Your task to perform on an android device: Clear the cart on newegg. Add "usb-c to usb-a" to the cart on newegg Image 0: 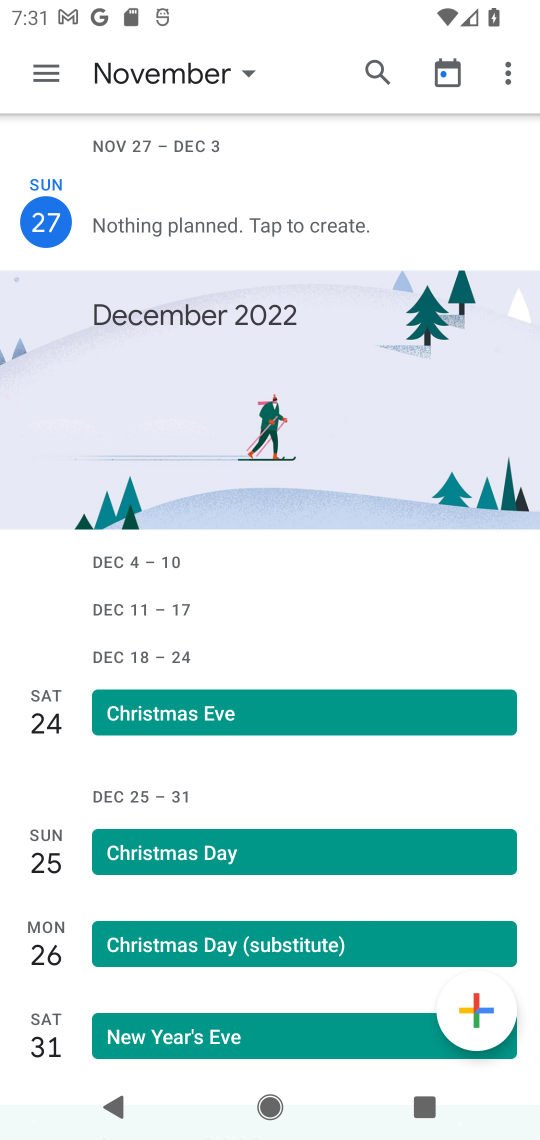
Step 0: press home button
Your task to perform on an android device: Clear the cart on newegg. Add "usb-c to usb-a" to the cart on newegg Image 1: 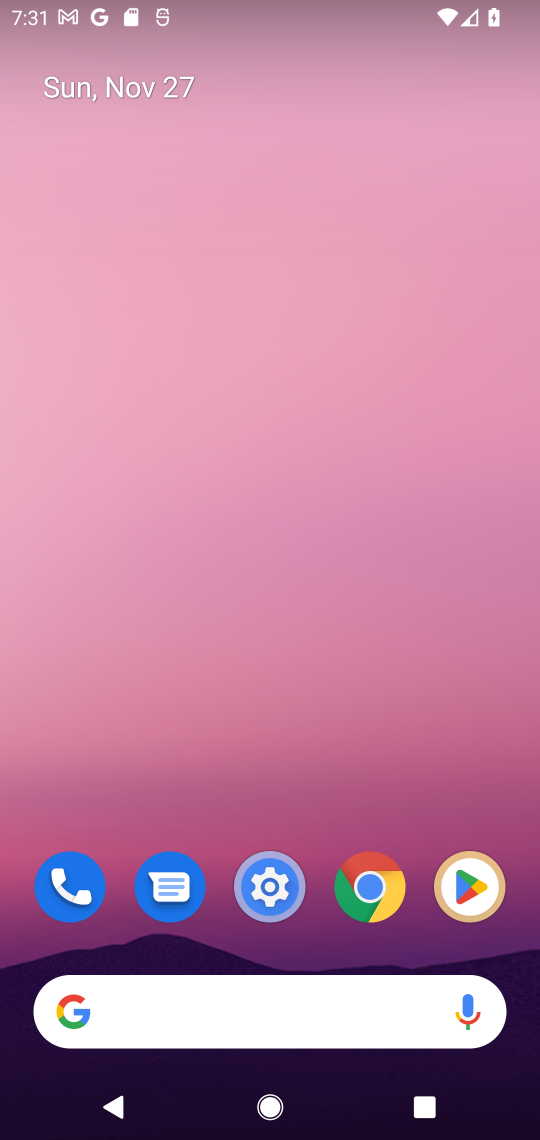
Step 1: click (253, 1007)
Your task to perform on an android device: Clear the cart on newegg. Add "usb-c to usb-a" to the cart on newegg Image 2: 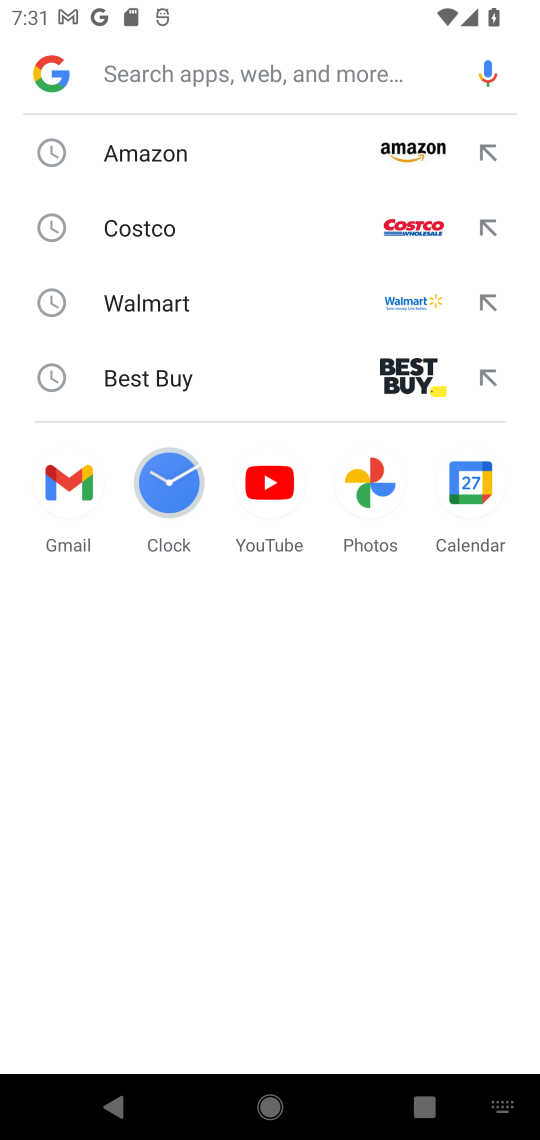
Step 2: type "newegg"
Your task to perform on an android device: Clear the cart on newegg. Add "usb-c to usb-a" to the cart on newegg Image 3: 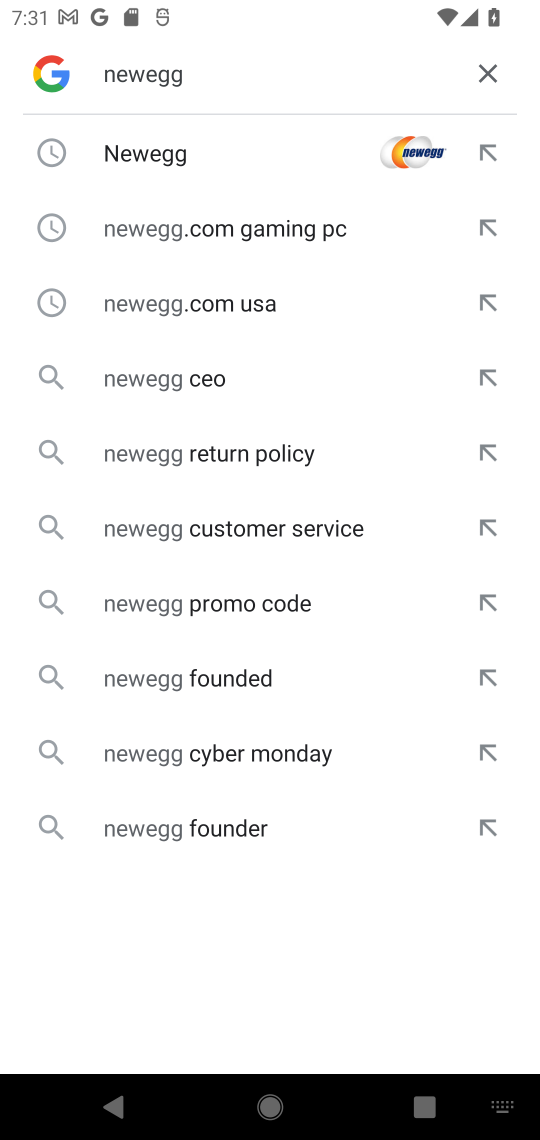
Step 3: click (159, 157)
Your task to perform on an android device: Clear the cart on newegg. Add "usb-c to usb-a" to the cart on newegg Image 4: 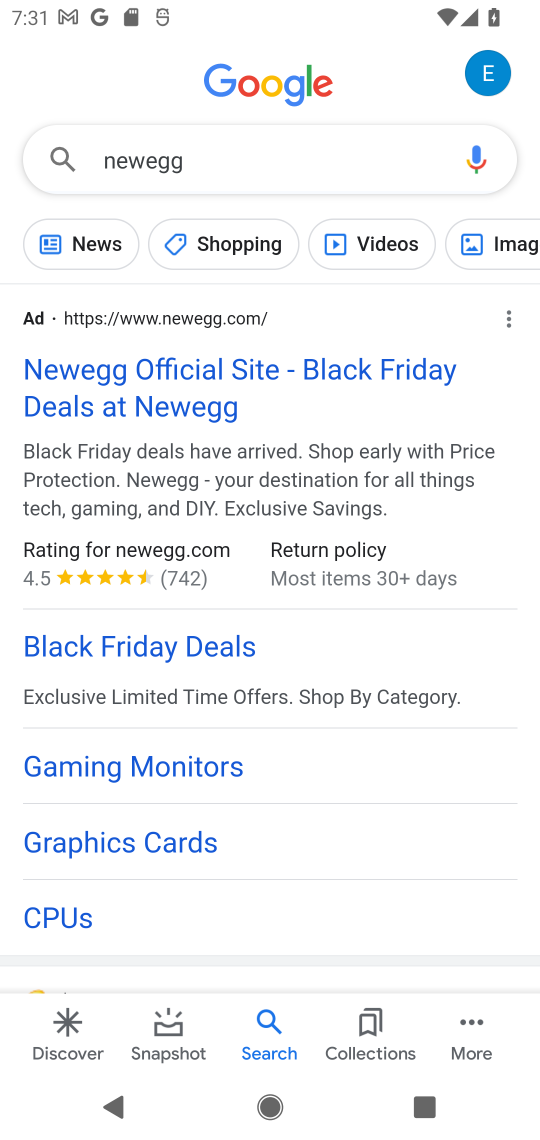
Step 4: click (210, 383)
Your task to perform on an android device: Clear the cart on newegg. Add "usb-c to usb-a" to the cart on newegg Image 5: 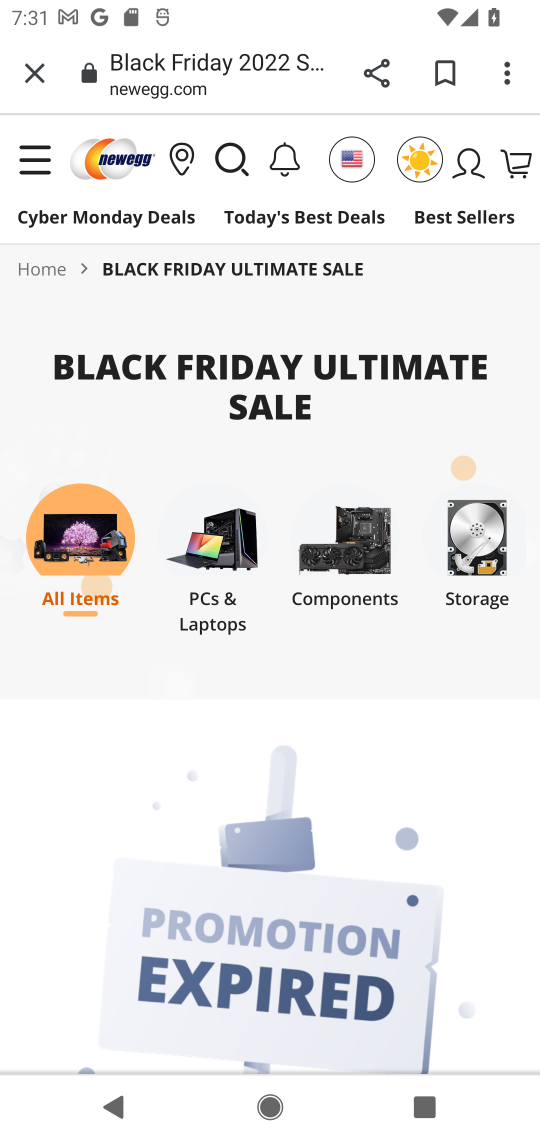
Step 5: task complete